Your task to perform on an android device: set an alarm Image 0: 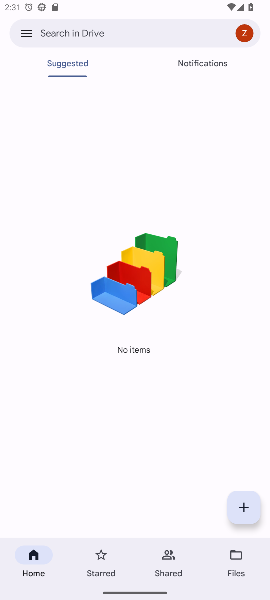
Step 0: press home button
Your task to perform on an android device: set an alarm Image 1: 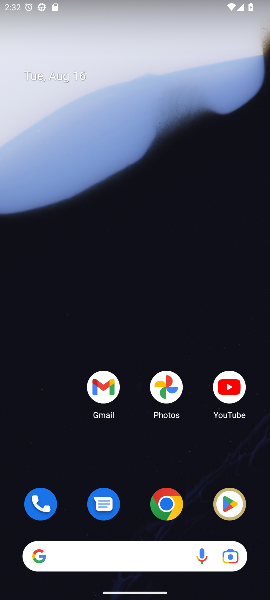
Step 1: drag from (125, 296) to (122, 37)
Your task to perform on an android device: set an alarm Image 2: 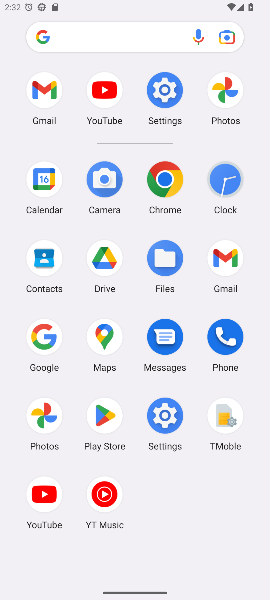
Step 2: click (223, 178)
Your task to perform on an android device: set an alarm Image 3: 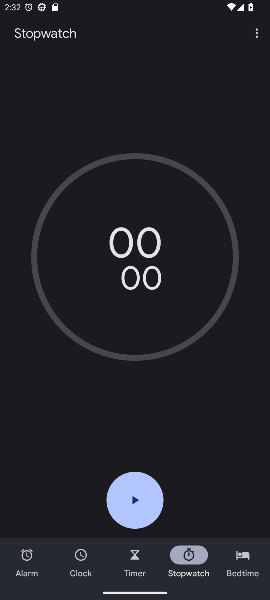
Step 3: click (21, 561)
Your task to perform on an android device: set an alarm Image 4: 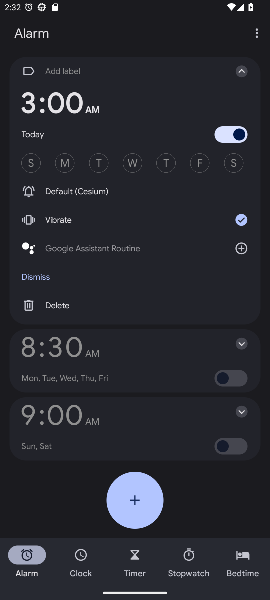
Step 4: click (132, 501)
Your task to perform on an android device: set an alarm Image 5: 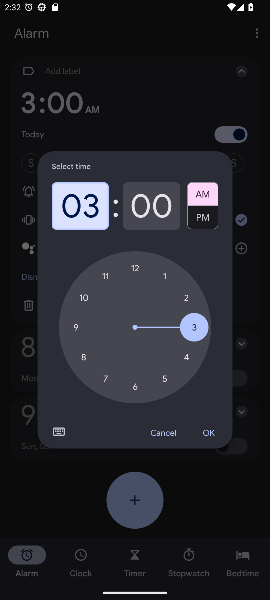
Step 5: click (204, 428)
Your task to perform on an android device: set an alarm Image 6: 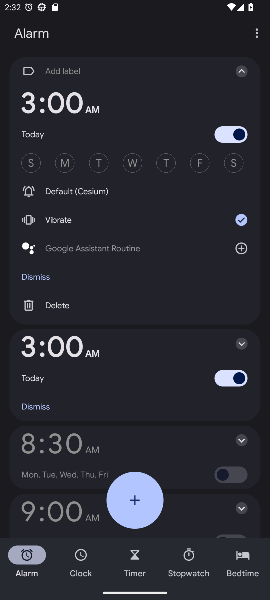
Step 6: task complete